Your task to perform on an android device: change the upload size in google photos Image 0: 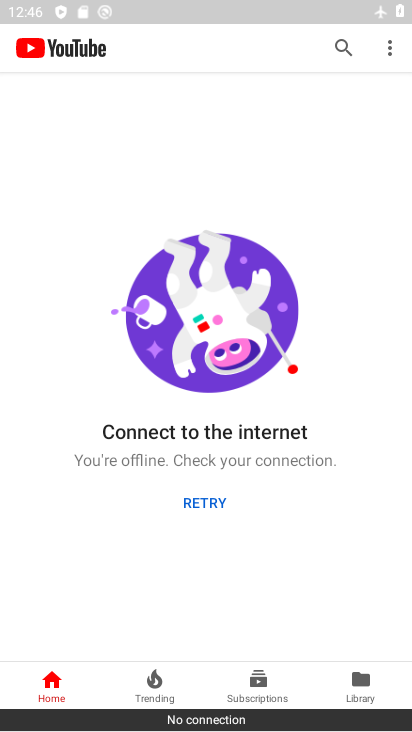
Step 0: press home button
Your task to perform on an android device: change the upload size in google photos Image 1: 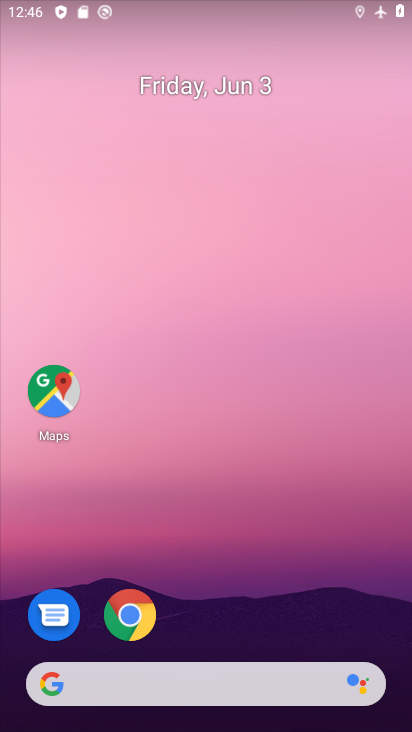
Step 1: drag from (210, 604) to (268, 220)
Your task to perform on an android device: change the upload size in google photos Image 2: 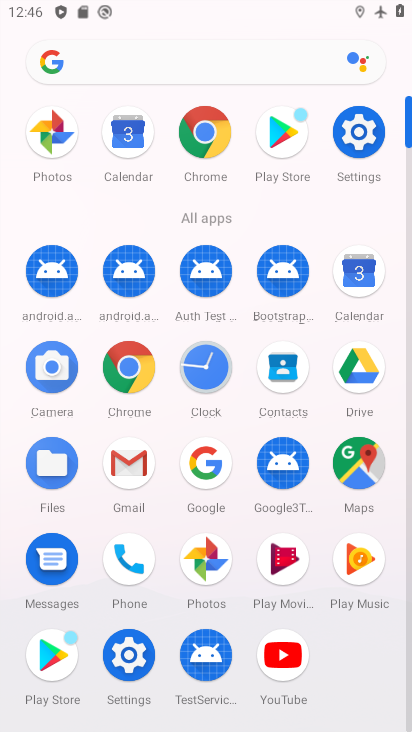
Step 2: click (200, 552)
Your task to perform on an android device: change the upload size in google photos Image 3: 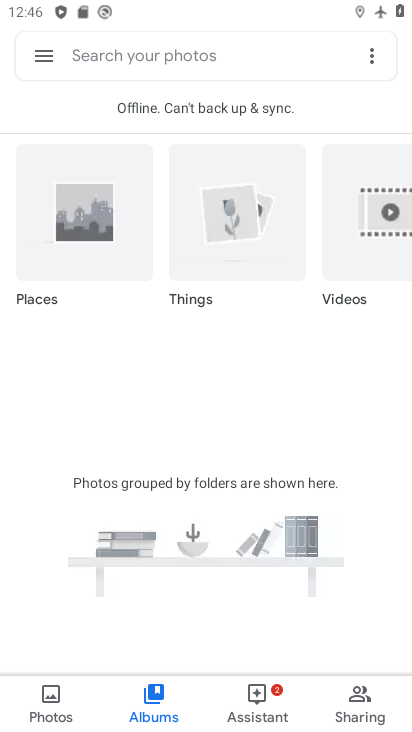
Step 3: click (44, 58)
Your task to perform on an android device: change the upload size in google photos Image 4: 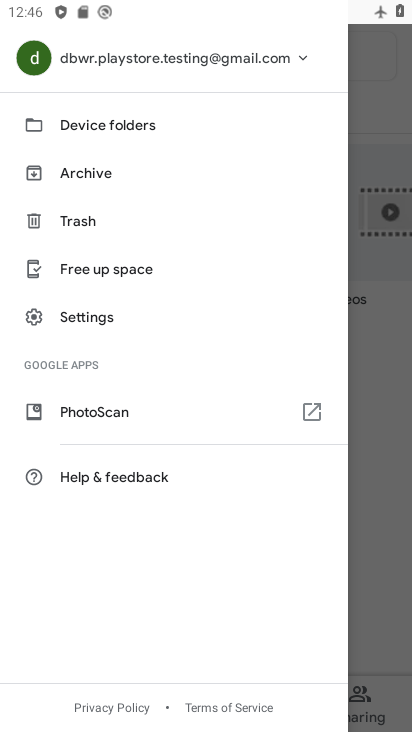
Step 4: click (96, 315)
Your task to perform on an android device: change the upload size in google photos Image 5: 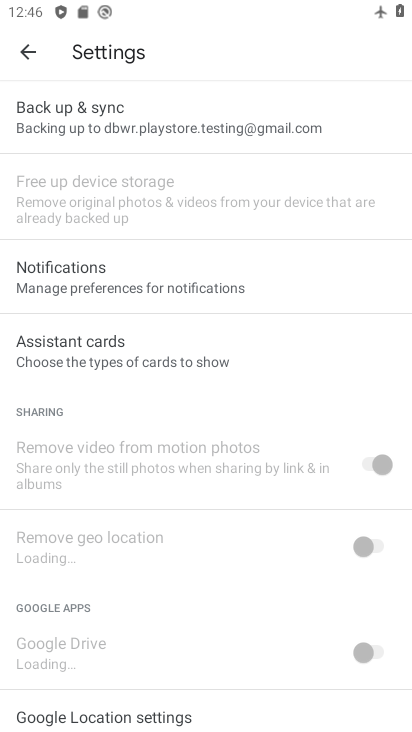
Step 5: click (121, 124)
Your task to perform on an android device: change the upload size in google photos Image 6: 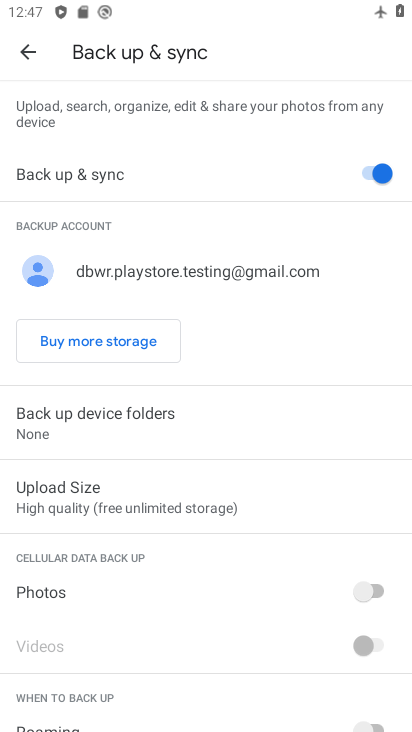
Step 6: click (135, 505)
Your task to perform on an android device: change the upload size in google photos Image 7: 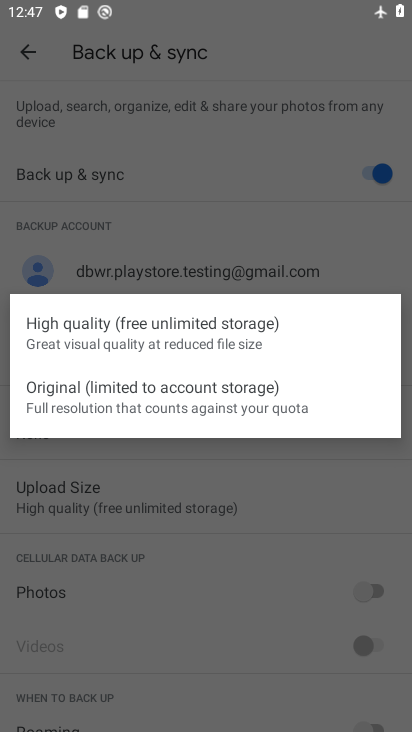
Step 7: click (100, 404)
Your task to perform on an android device: change the upload size in google photos Image 8: 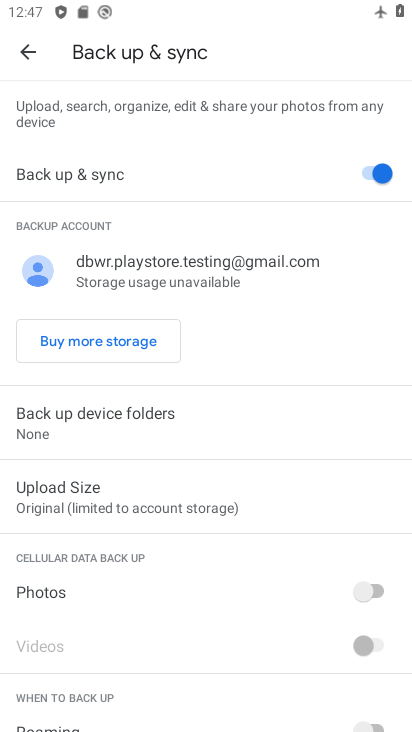
Step 8: task complete